Your task to perform on an android device: change alarm snooze length Image 0: 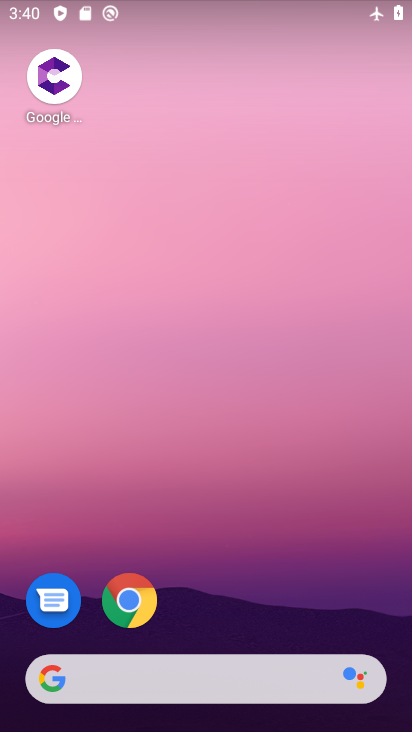
Step 0: drag from (229, 503) to (209, 149)
Your task to perform on an android device: change alarm snooze length Image 1: 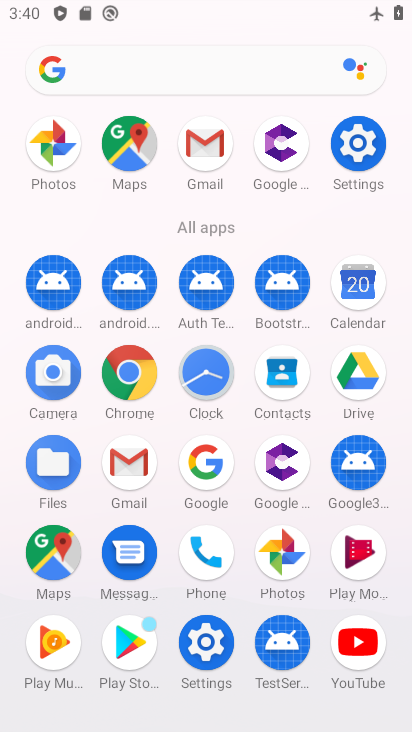
Step 1: click (206, 377)
Your task to perform on an android device: change alarm snooze length Image 2: 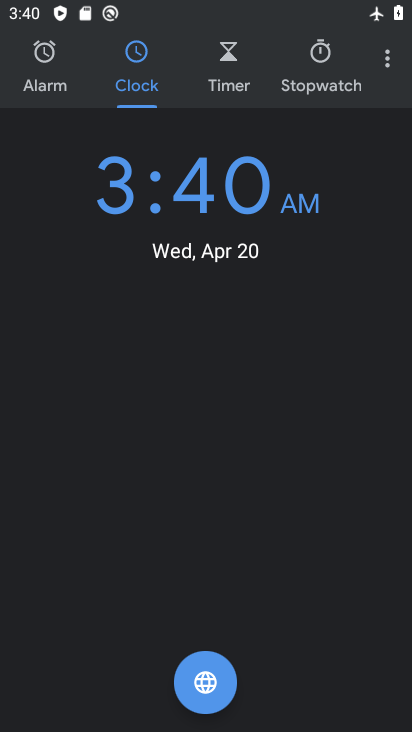
Step 2: click (386, 55)
Your task to perform on an android device: change alarm snooze length Image 3: 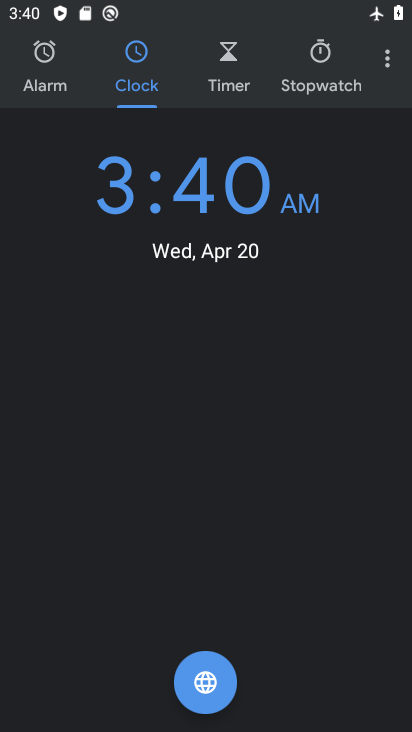
Step 3: click (387, 61)
Your task to perform on an android device: change alarm snooze length Image 4: 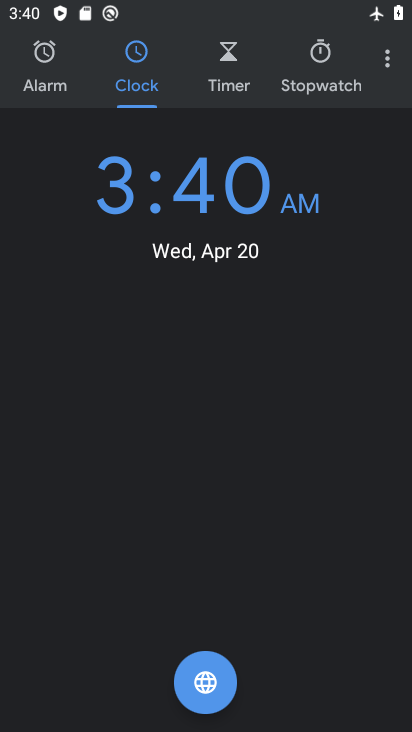
Step 4: click (383, 59)
Your task to perform on an android device: change alarm snooze length Image 5: 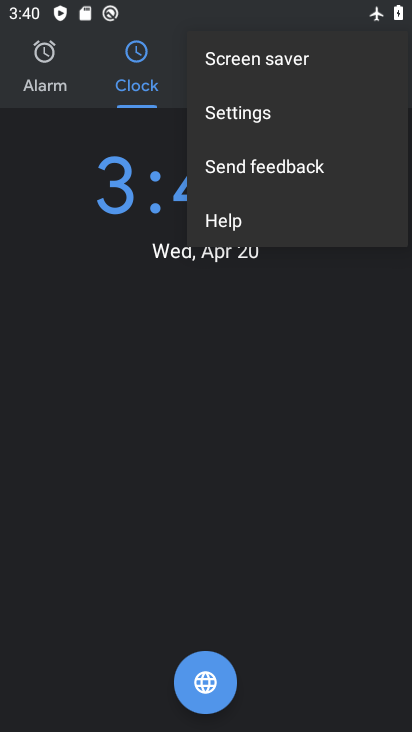
Step 5: click (255, 111)
Your task to perform on an android device: change alarm snooze length Image 6: 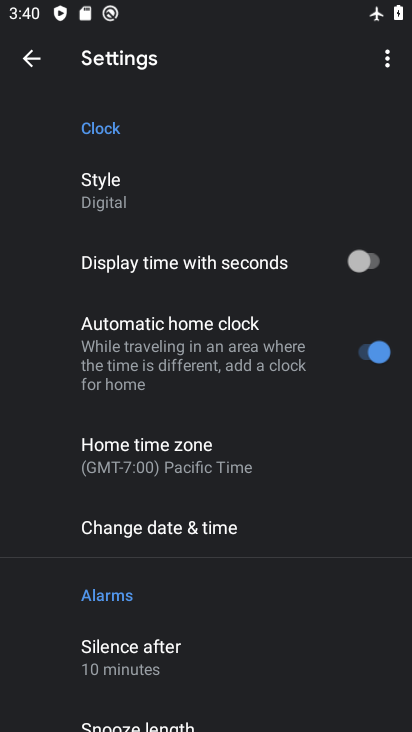
Step 6: drag from (233, 678) to (233, 366)
Your task to perform on an android device: change alarm snooze length Image 7: 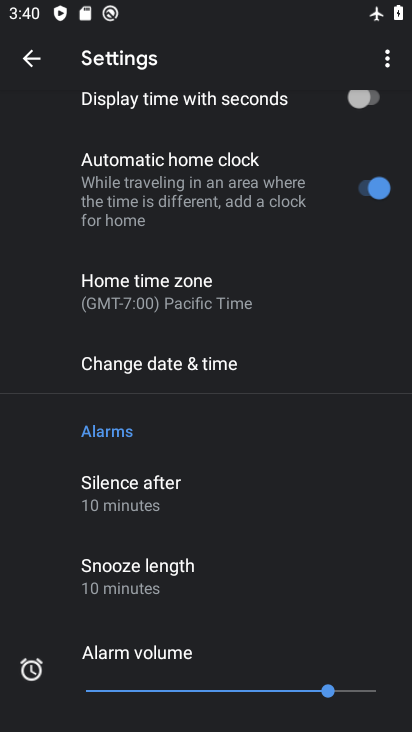
Step 7: click (198, 575)
Your task to perform on an android device: change alarm snooze length Image 8: 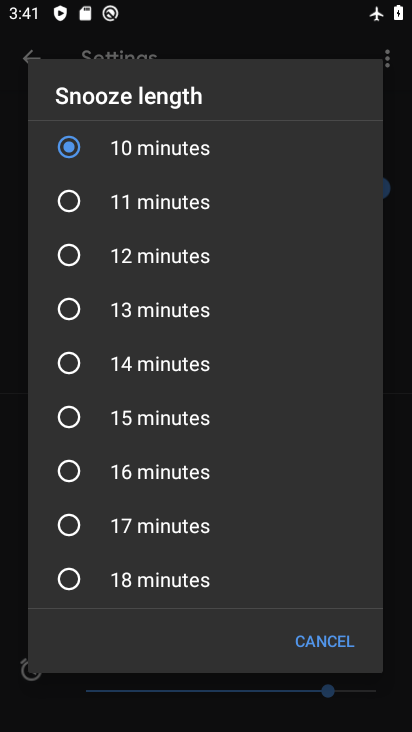
Step 8: click (174, 238)
Your task to perform on an android device: change alarm snooze length Image 9: 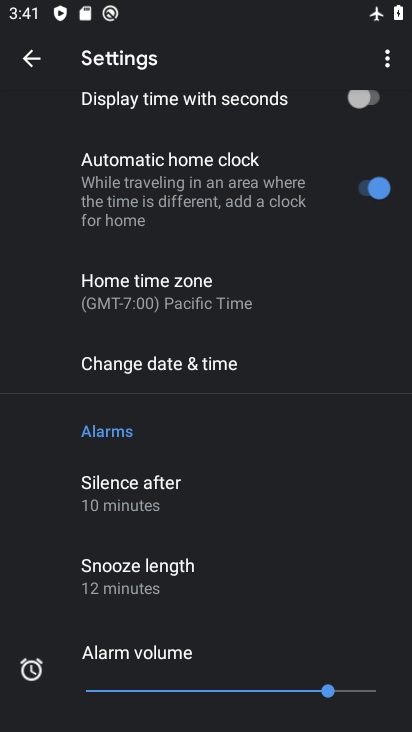
Step 9: task complete